Your task to perform on an android device: Open internet settings Image 0: 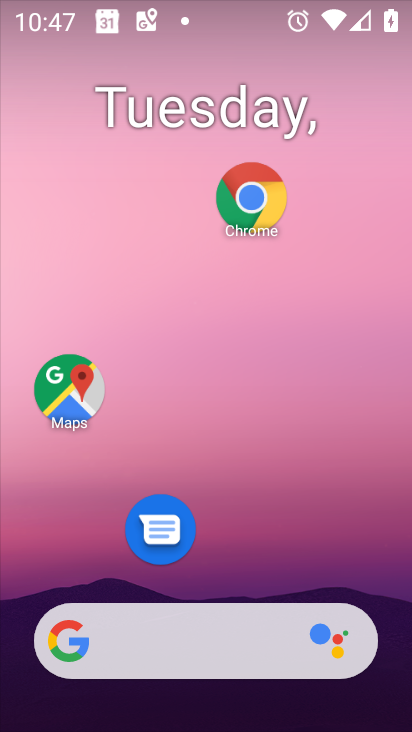
Step 0: drag from (287, 562) to (289, 107)
Your task to perform on an android device: Open internet settings Image 1: 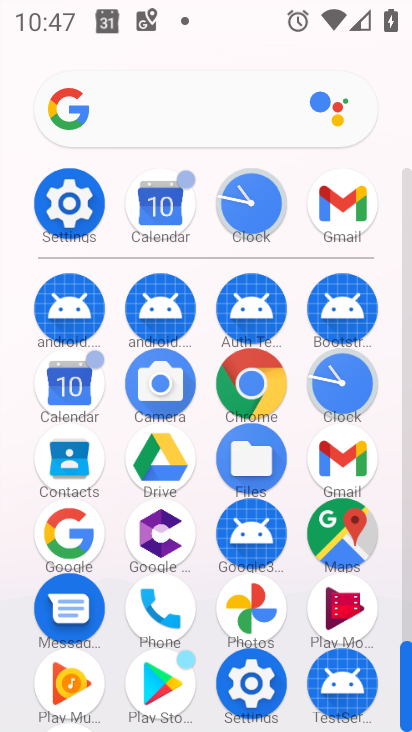
Step 1: click (71, 194)
Your task to perform on an android device: Open internet settings Image 2: 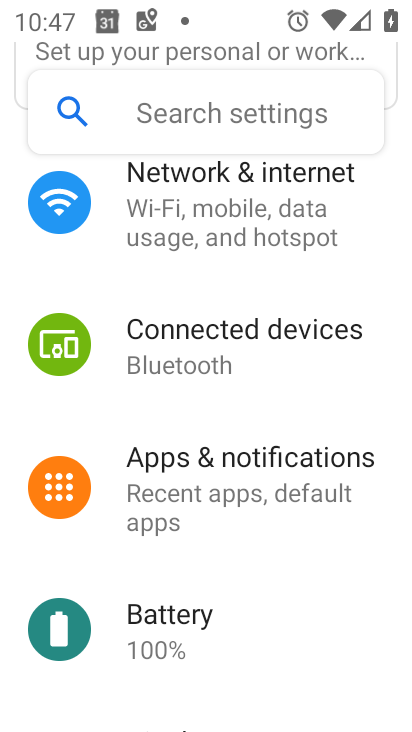
Step 2: click (229, 213)
Your task to perform on an android device: Open internet settings Image 3: 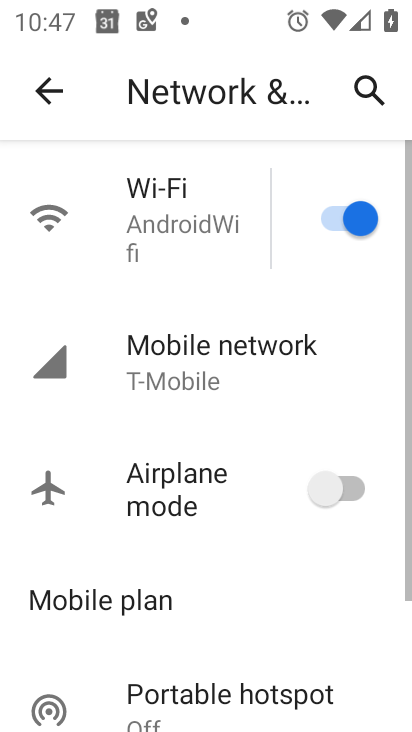
Step 3: task complete